Your task to perform on an android device: turn vacation reply on in the gmail app Image 0: 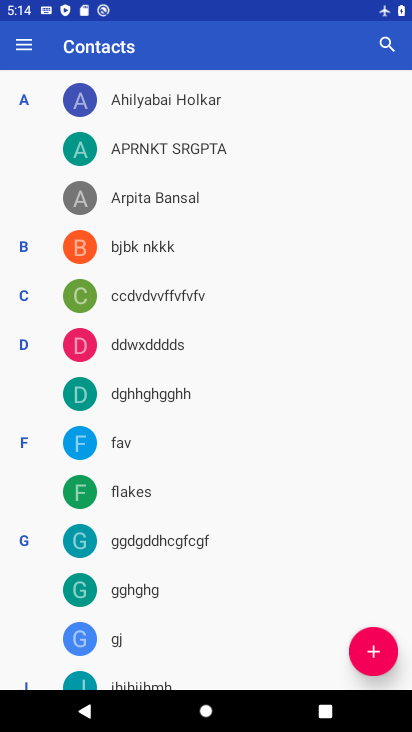
Step 0: press home button
Your task to perform on an android device: turn vacation reply on in the gmail app Image 1: 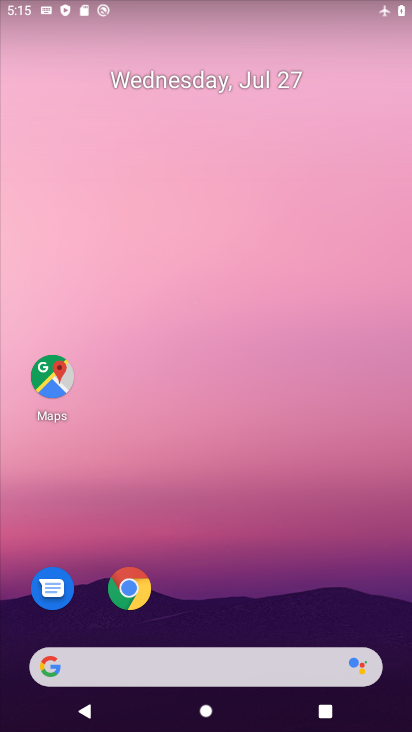
Step 1: drag from (301, 656) to (333, 164)
Your task to perform on an android device: turn vacation reply on in the gmail app Image 2: 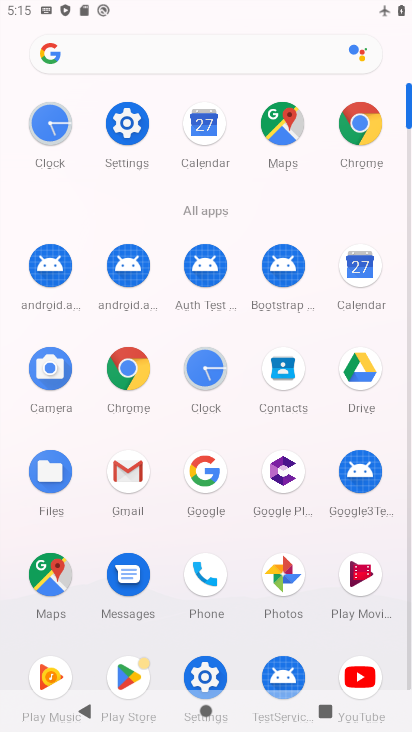
Step 2: click (123, 457)
Your task to perform on an android device: turn vacation reply on in the gmail app Image 3: 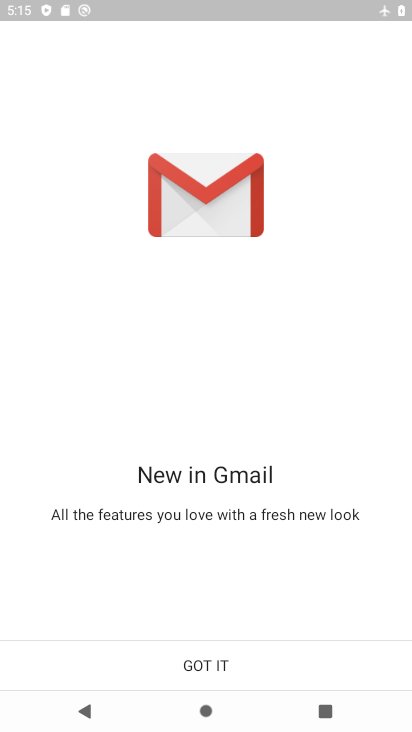
Step 3: click (212, 649)
Your task to perform on an android device: turn vacation reply on in the gmail app Image 4: 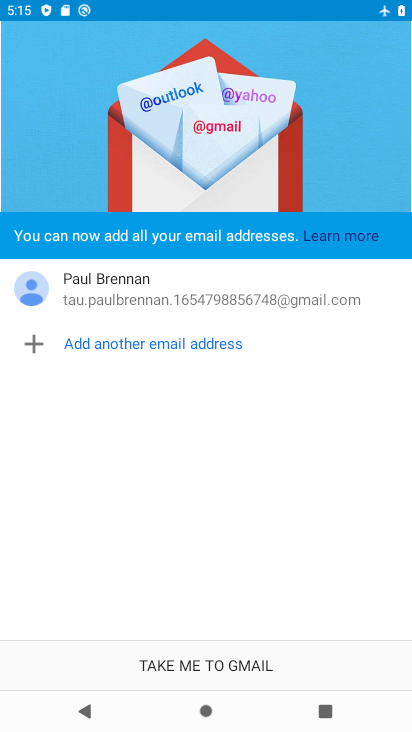
Step 4: click (212, 649)
Your task to perform on an android device: turn vacation reply on in the gmail app Image 5: 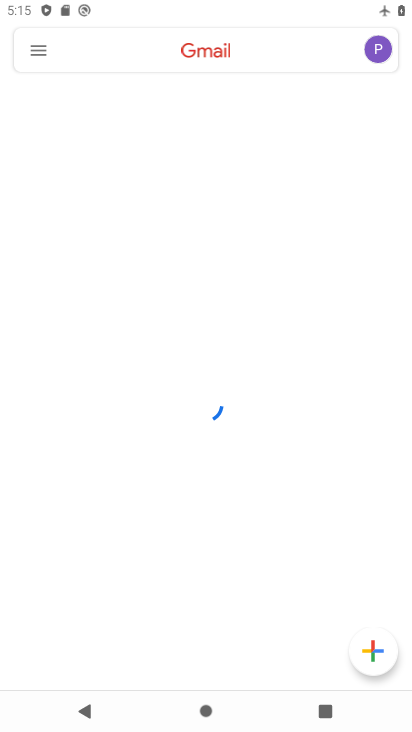
Step 5: click (27, 54)
Your task to perform on an android device: turn vacation reply on in the gmail app Image 6: 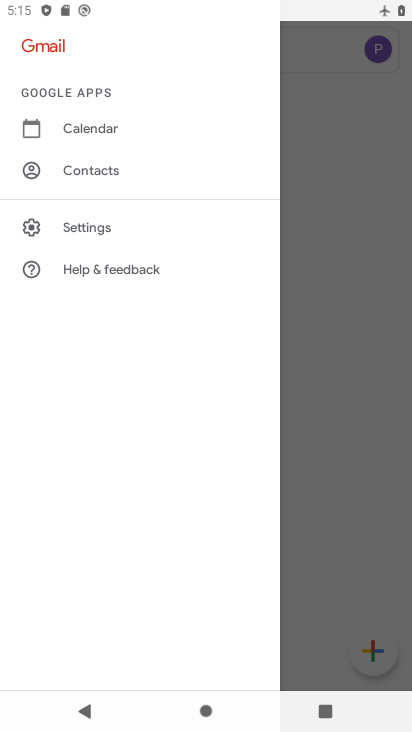
Step 6: click (92, 226)
Your task to perform on an android device: turn vacation reply on in the gmail app Image 7: 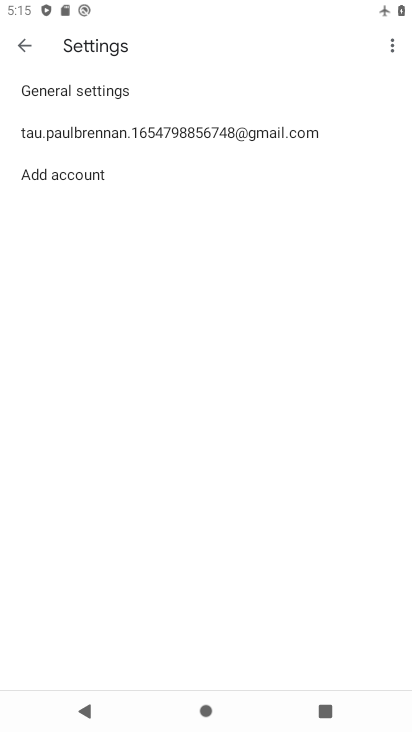
Step 7: click (138, 125)
Your task to perform on an android device: turn vacation reply on in the gmail app Image 8: 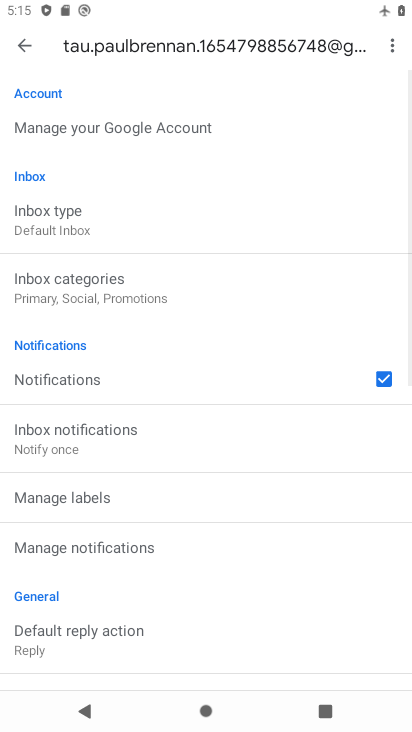
Step 8: drag from (123, 462) to (163, 120)
Your task to perform on an android device: turn vacation reply on in the gmail app Image 9: 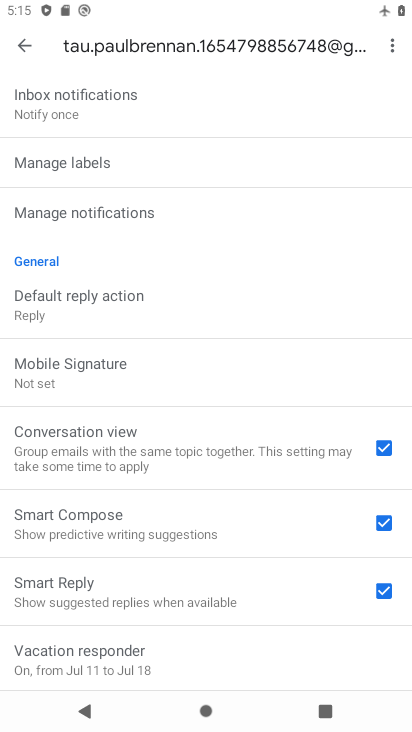
Step 9: click (139, 646)
Your task to perform on an android device: turn vacation reply on in the gmail app Image 10: 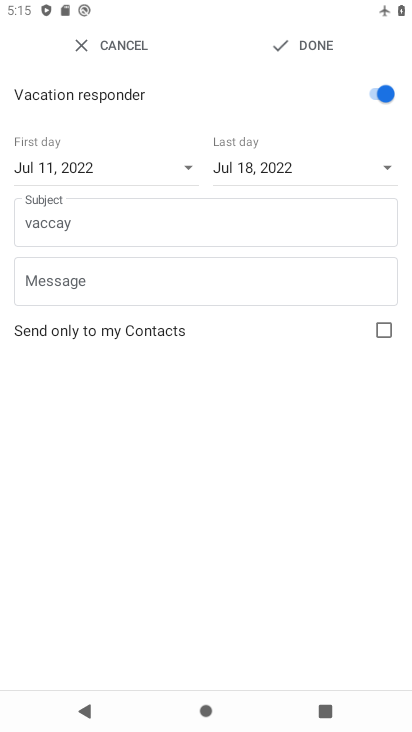
Step 10: task complete